Your task to perform on an android device: View the shopping cart on costco.com. Image 0: 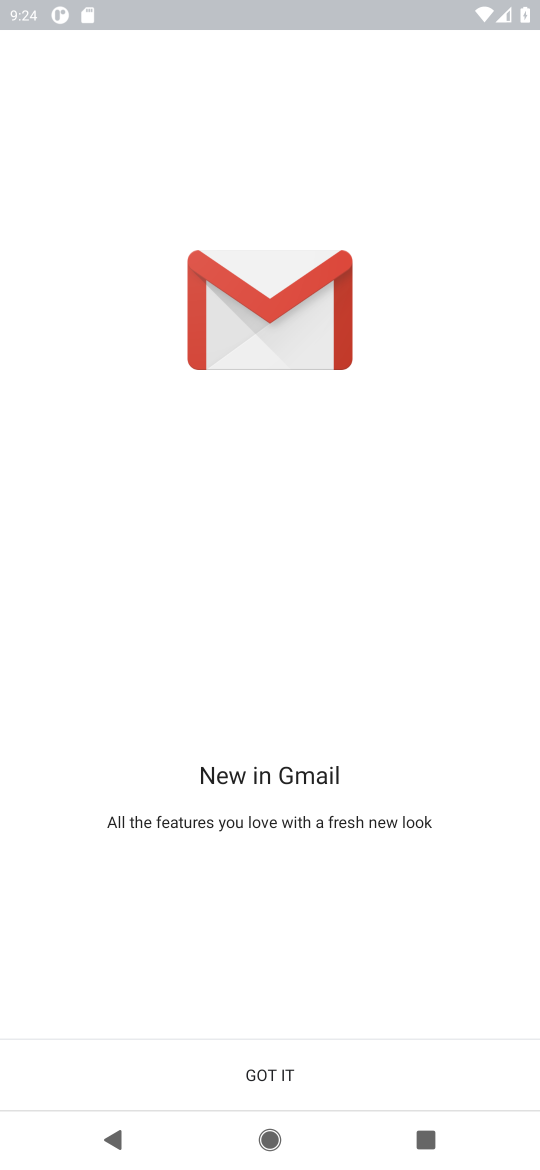
Step 0: press home button
Your task to perform on an android device: View the shopping cart on costco.com. Image 1: 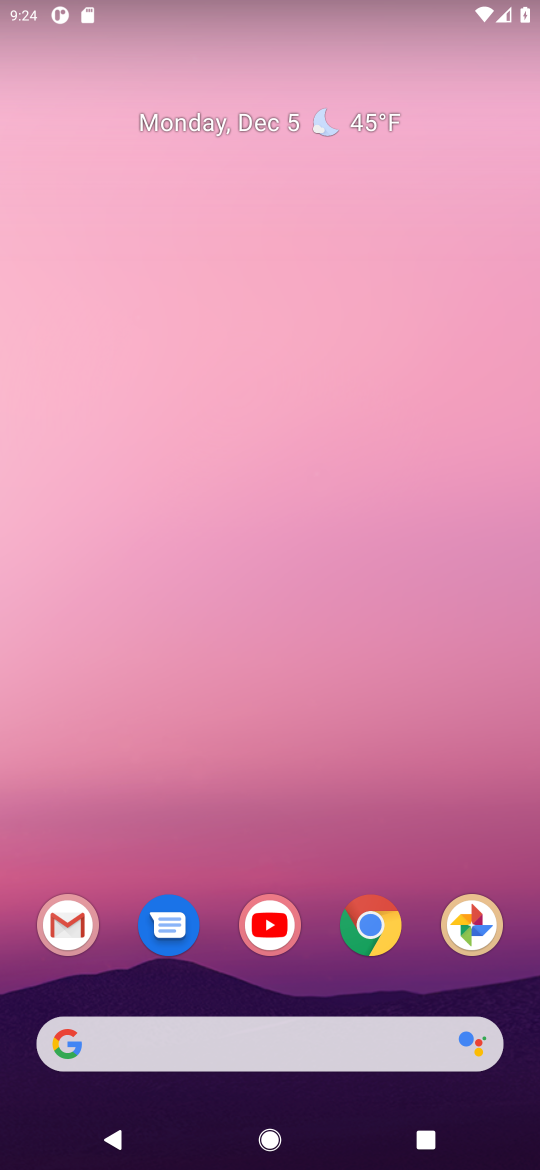
Step 1: click (365, 935)
Your task to perform on an android device: View the shopping cart on costco.com. Image 2: 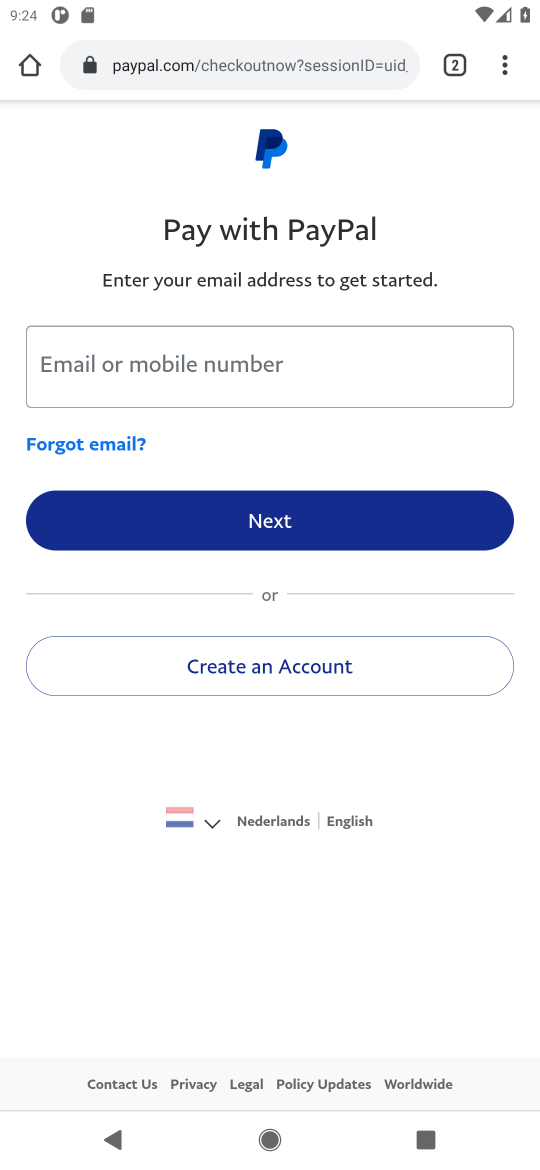
Step 2: click (189, 73)
Your task to perform on an android device: View the shopping cart on costco.com. Image 3: 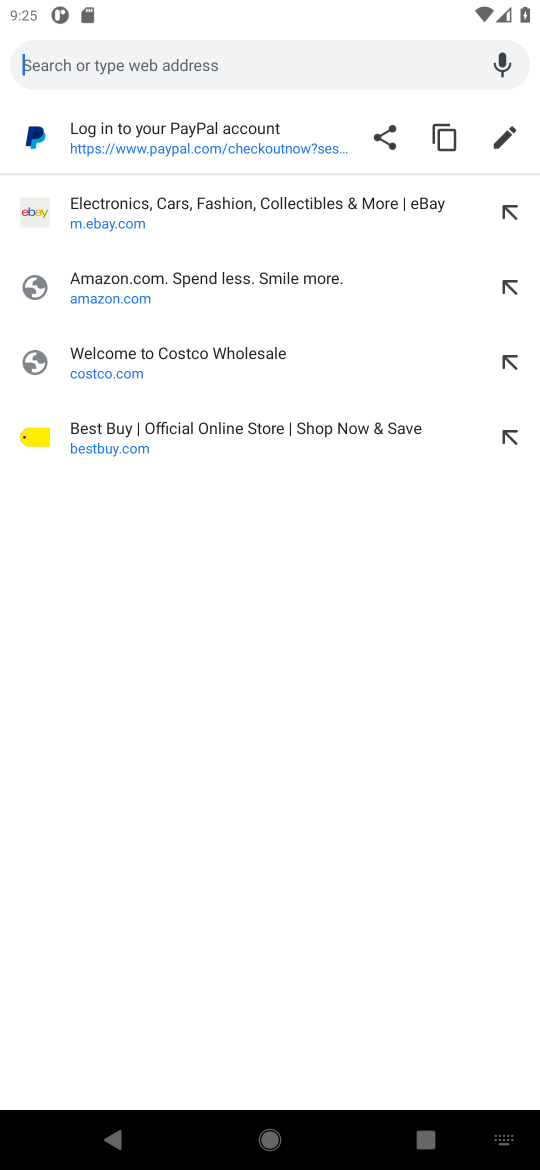
Step 3: click (104, 377)
Your task to perform on an android device: View the shopping cart on costco.com. Image 4: 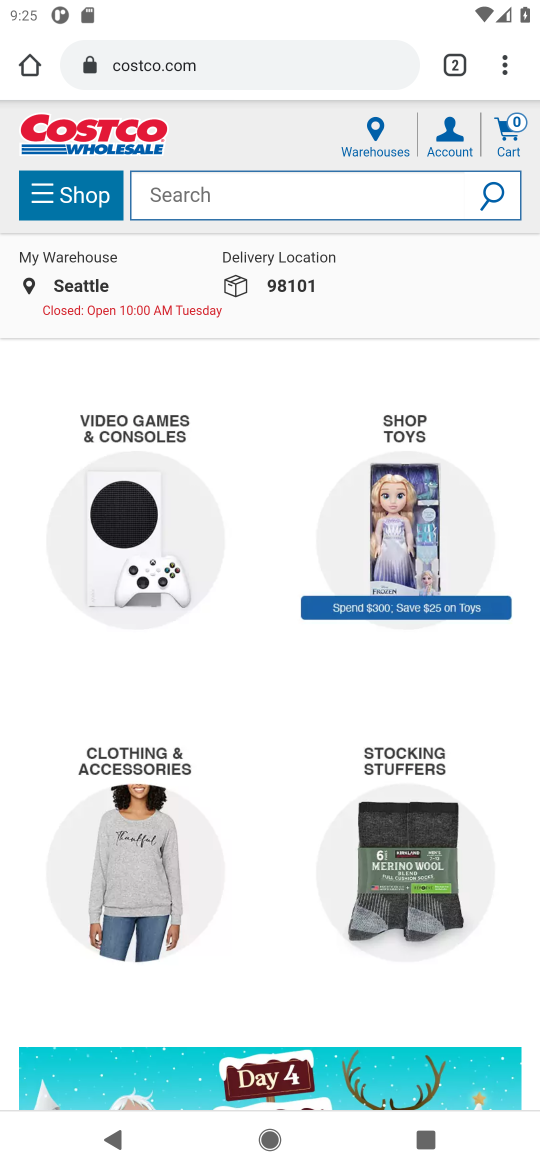
Step 4: click (502, 133)
Your task to perform on an android device: View the shopping cart on costco.com. Image 5: 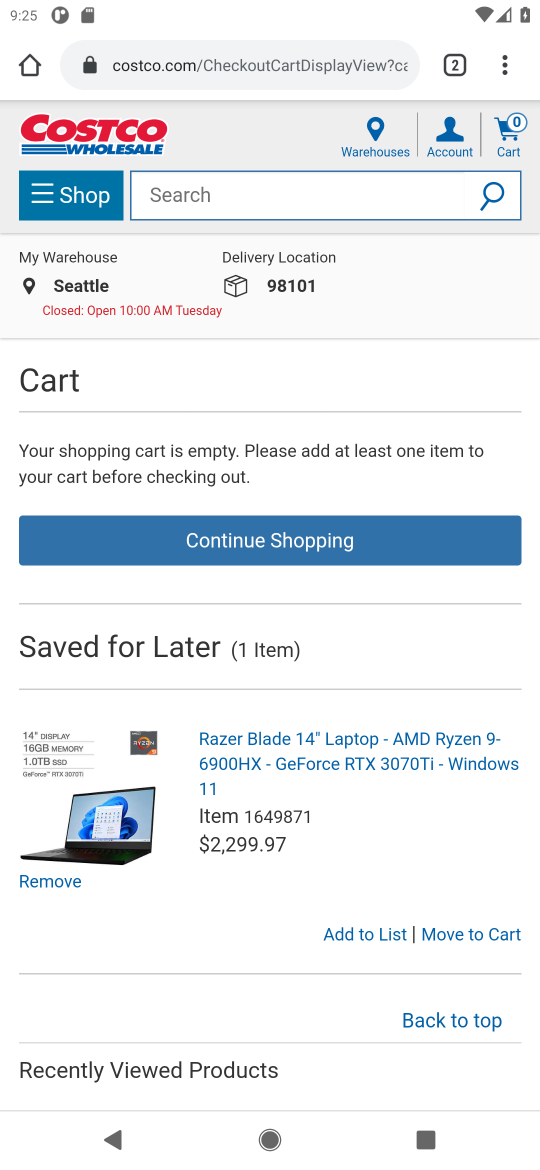
Step 5: task complete